Your task to perform on an android device: Search for Italian restaurants on Maps Image 0: 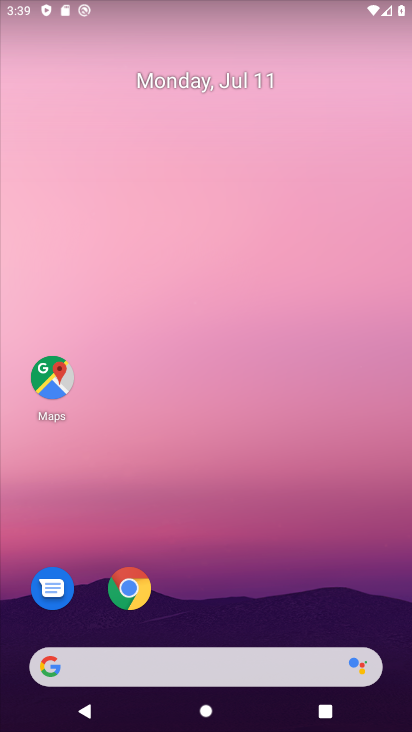
Step 0: press home button
Your task to perform on an android device: Search for Italian restaurants on Maps Image 1: 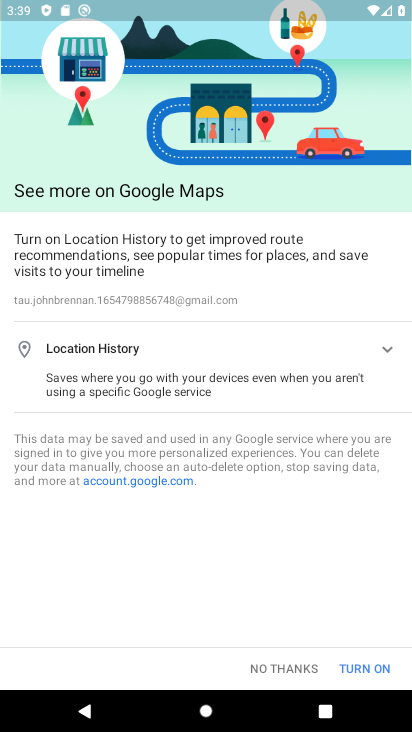
Step 1: press home button
Your task to perform on an android device: Search for Italian restaurants on Maps Image 2: 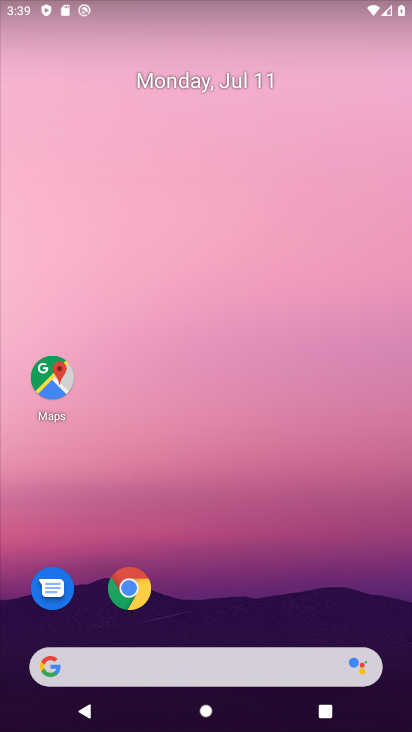
Step 2: drag from (269, 551) to (238, 57)
Your task to perform on an android device: Search for Italian restaurants on Maps Image 3: 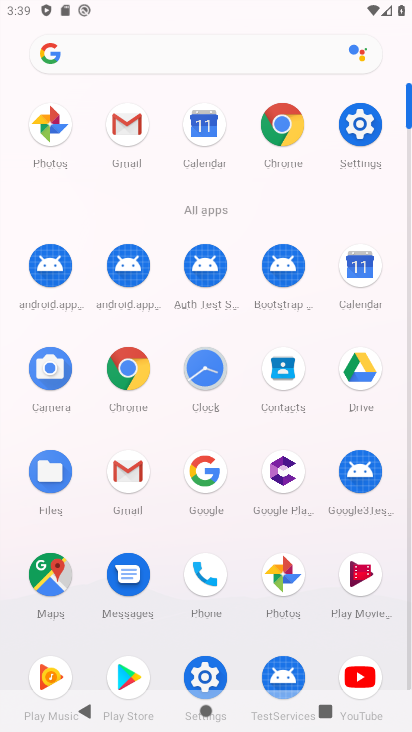
Step 3: click (51, 574)
Your task to perform on an android device: Search for Italian restaurants on Maps Image 4: 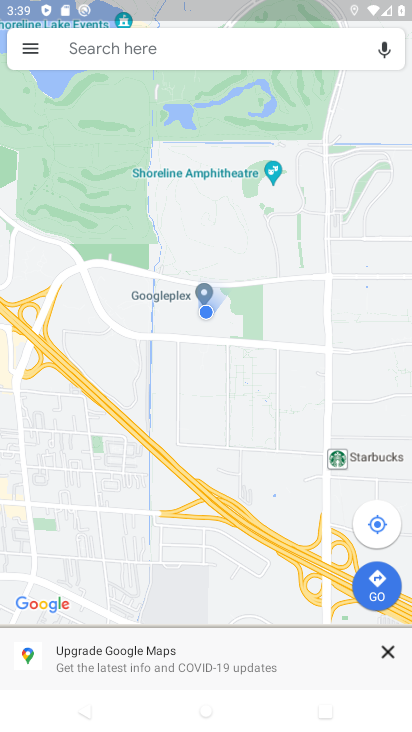
Step 4: click (149, 53)
Your task to perform on an android device: Search for Italian restaurants on Maps Image 5: 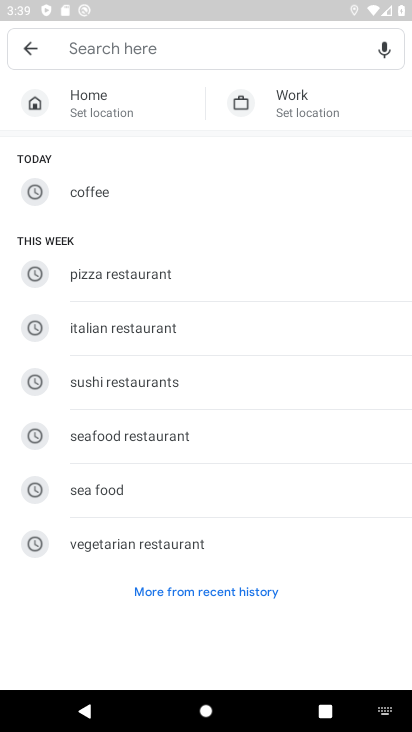
Step 5: click (119, 331)
Your task to perform on an android device: Search for Italian restaurants on Maps Image 6: 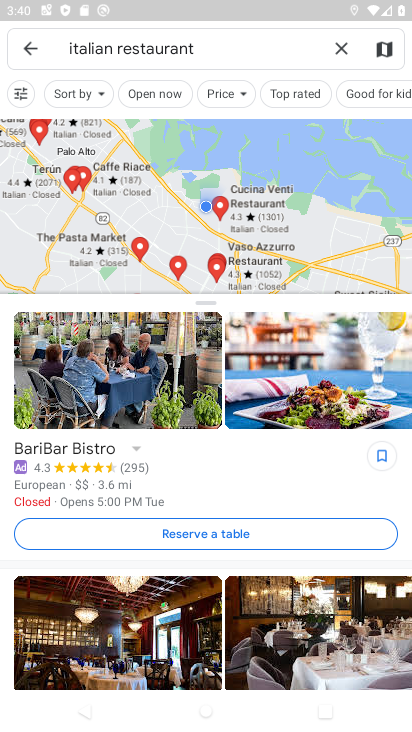
Step 6: task complete